Your task to perform on an android device: check data usage Image 0: 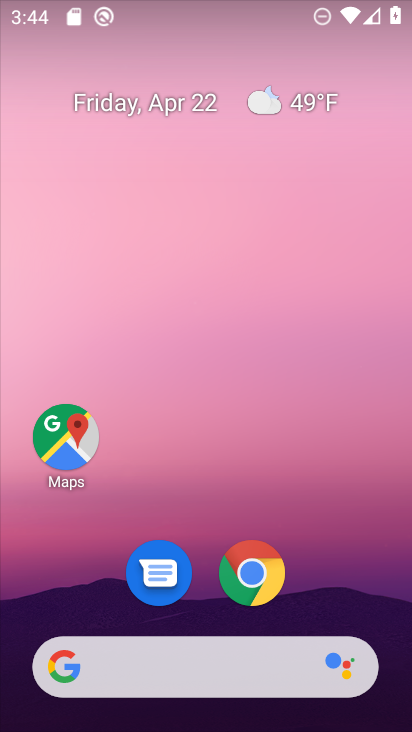
Step 0: drag from (326, 417) to (341, 171)
Your task to perform on an android device: check data usage Image 1: 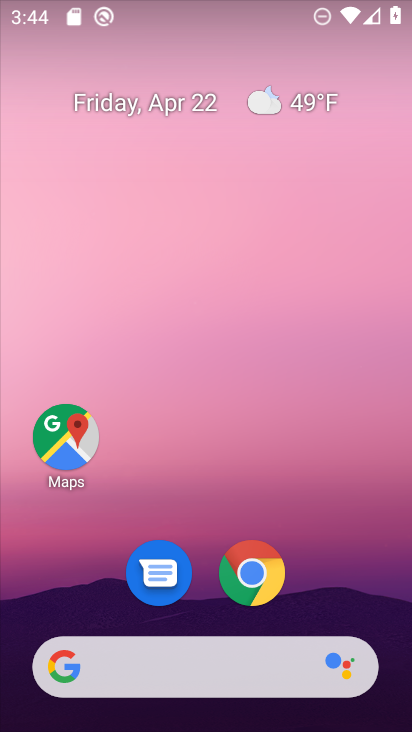
Step 1: drag from (319, 611) to (325, 103)
Your task to perform on an android device: check data usage Image 2: 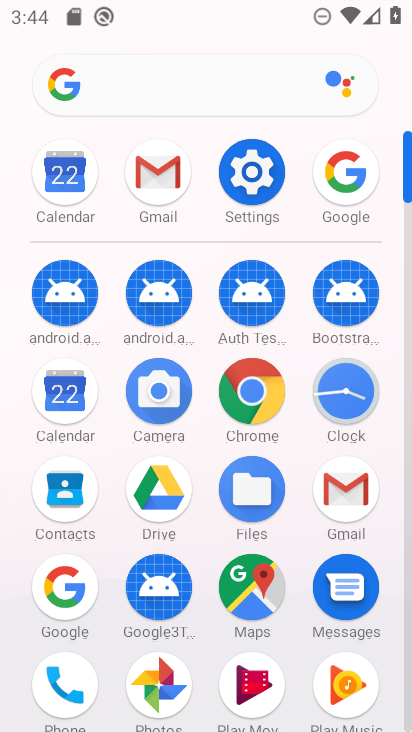
Step 2: click (254, 179)
Your task to perform on an android device: check data usage Image 3: 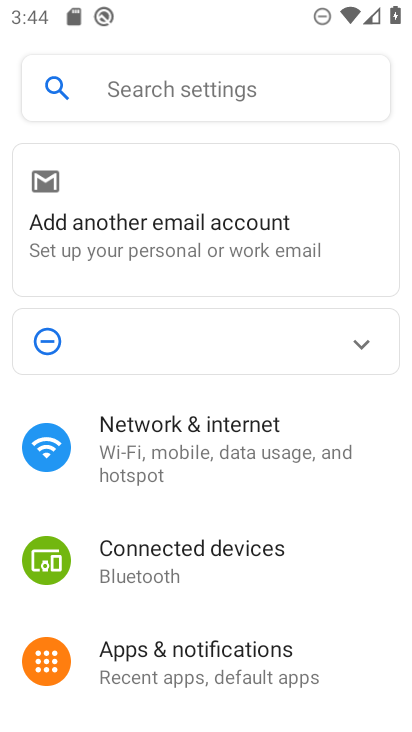
Step 3: drag from (247, 578) to (258, 131)
Your task to perform on an android device: check data usage Image 4: 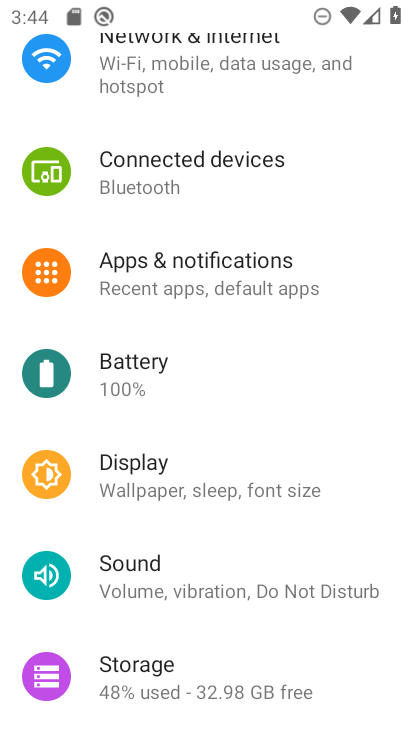
Step 4: drag from (252, 207) to (240, 451)
Your task to perform on an android device: check data usage Image 5: 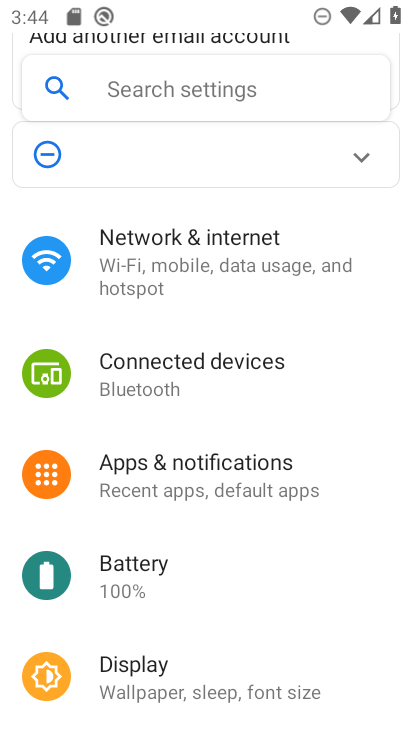
Step 5: click (216, 247)
Your task to perform on an android device: check data usage Image 6: 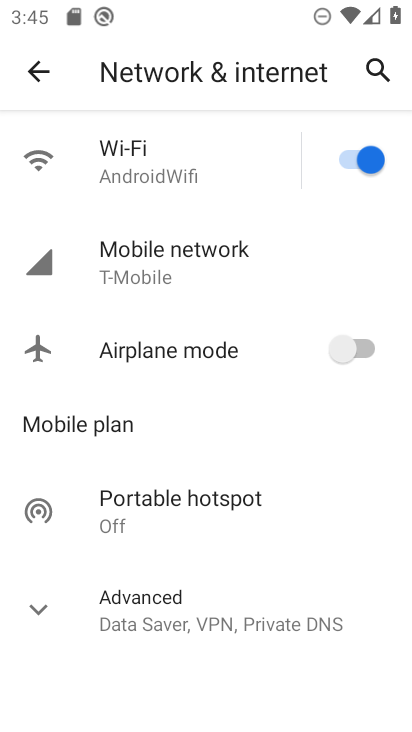
Step 6: click (197, 290)
Your task to perform on an android device: check data usage Image 7: 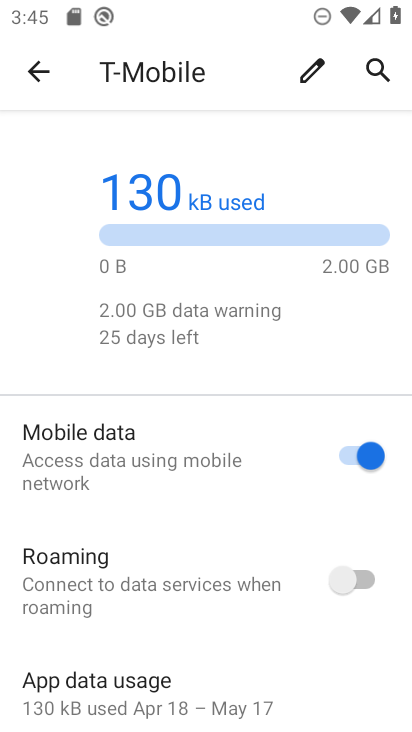
Step 7: click (149, 693)
Your task to perform on an android device: check data usage Image 8: 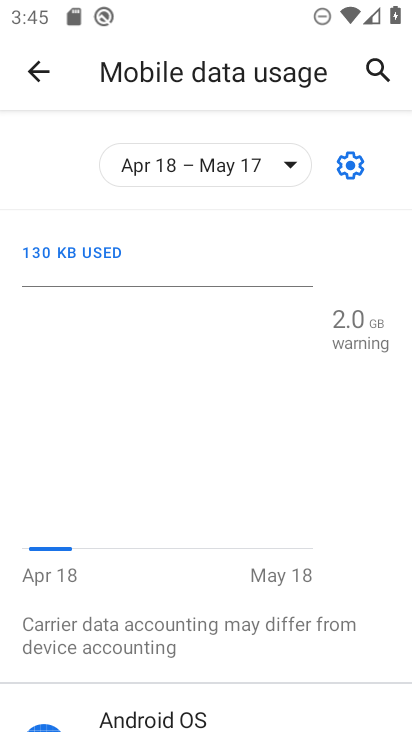
Step 8: task complete